Your task to perform on an android device: turn on improve location accuracy Image 0: 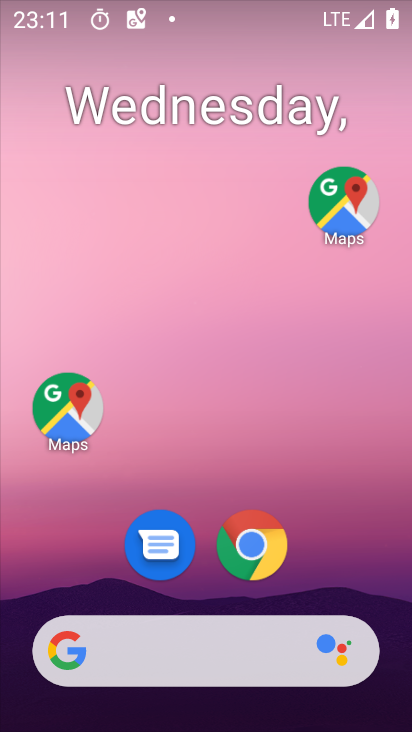
Step 0: drag from (341, 600) to (328, 45)
Your task to perform on an android device: turn on improve location accuracy Image 1: 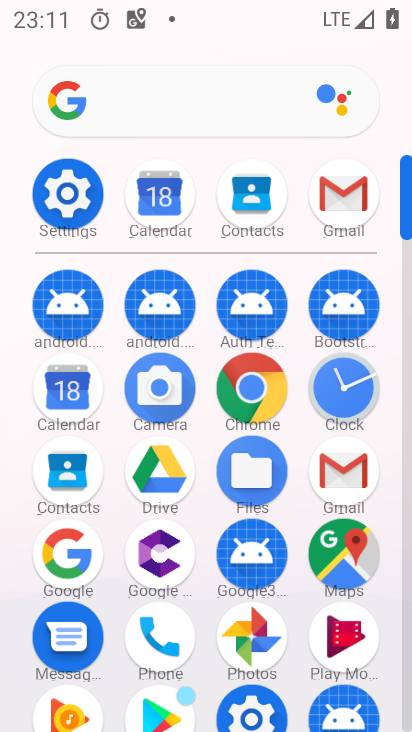
Step 1: click (77, 198)
Your task to perform on an android device: turn on improve location accuracy Image 2: 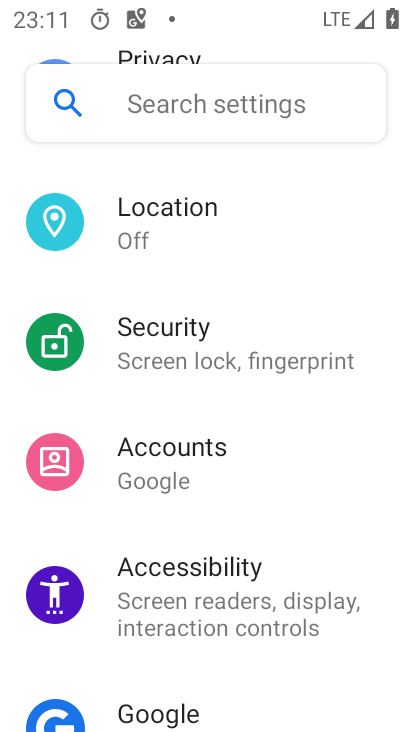
Step 2: click (231, 210)
Your task to perform on an android device: turn on improve location accuracy Image 3: 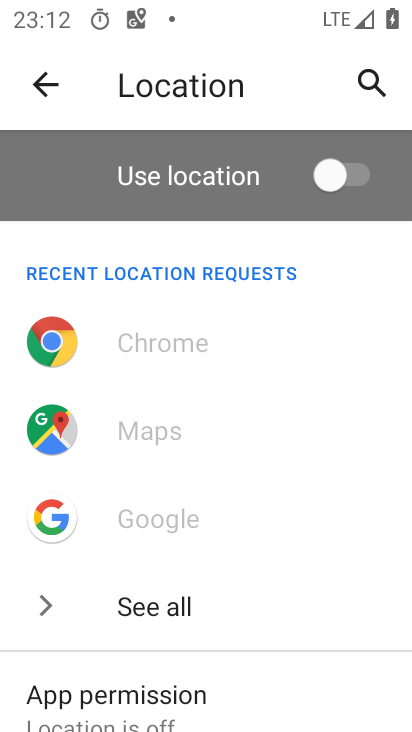
Step 3: drag from (241, 699) to (234, 241)
Your task to perform on an android device: turn on improve location accuracy Image 4: 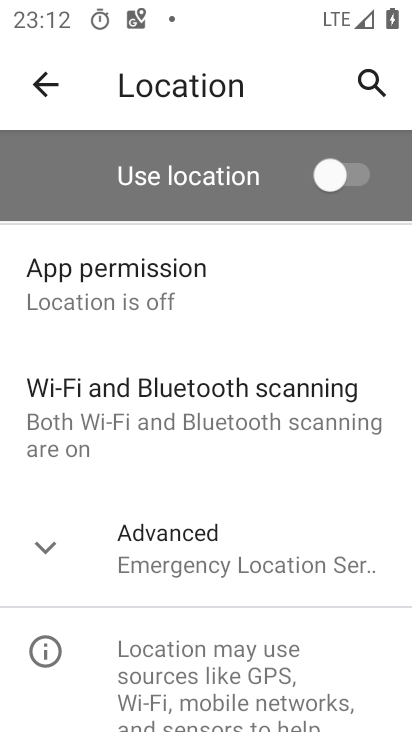
Step 4: click (180, 557)
Your task to perform on an android device: turn on improve location accuracy Image 5: 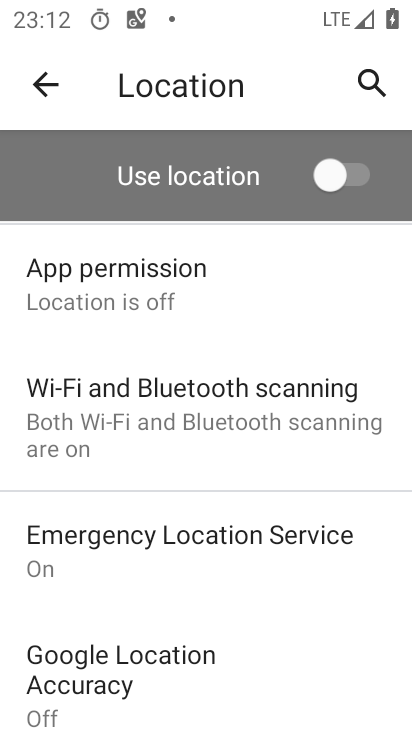
Step 5: drag from (183, 650) to (185, 453)
Your task to perform on an android device: turn on improve location accuracy Image 6: 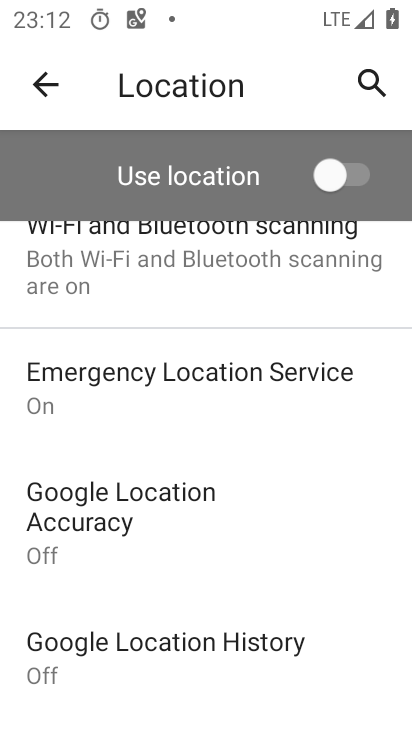
Step 6: click (152, 504)
Your task to perform on an android device: turn on improve location accuracy Image 7: 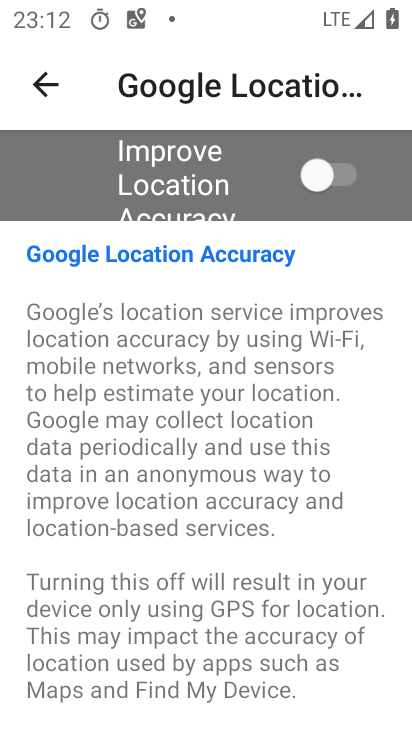
Step 7: click (339, 176)
Your task to perform on an android device: turn on improve location accuracy Image 8: 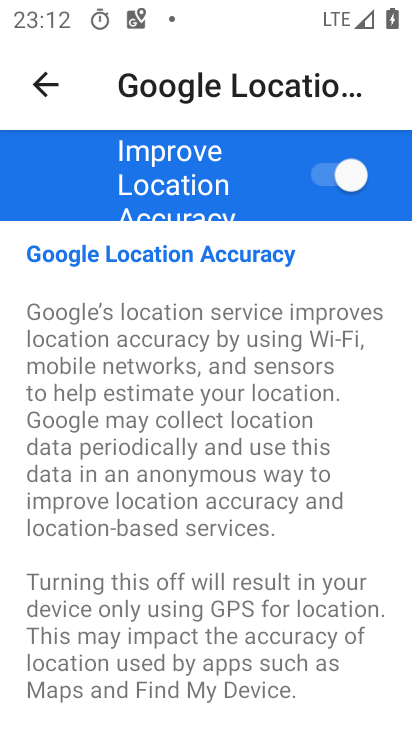
Step 8: task complete